Your task to perform on an android device: Open the stopwatch Image 0: 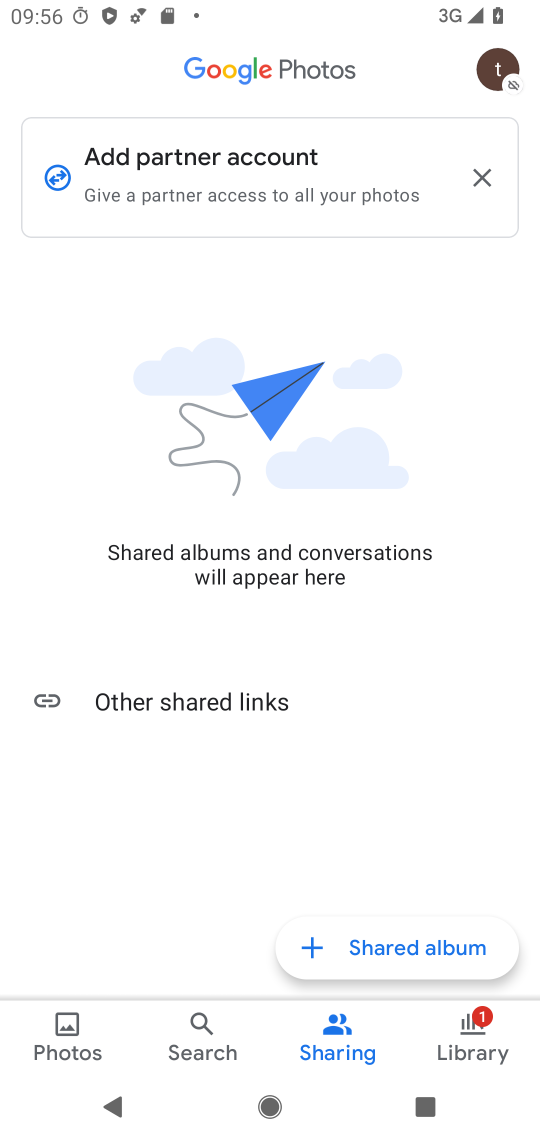
Step 0: press home button
Your task to perform on an android device: Open the stopwatch Image 1: 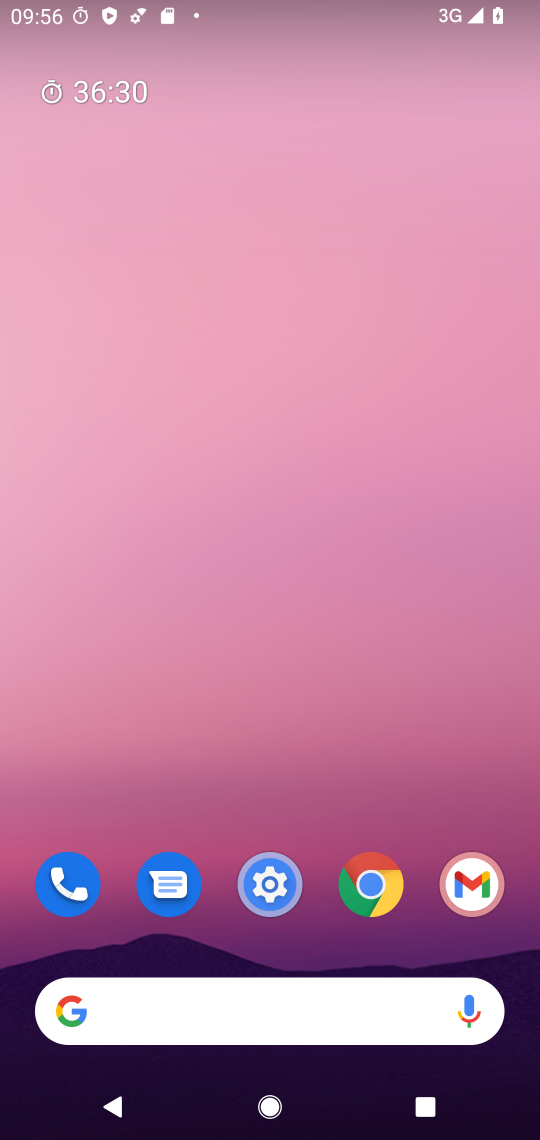
Step 1: drag from (294, 642) to (302, 184)
Your task to perform on an android device: Open the stopwatch Image 2: 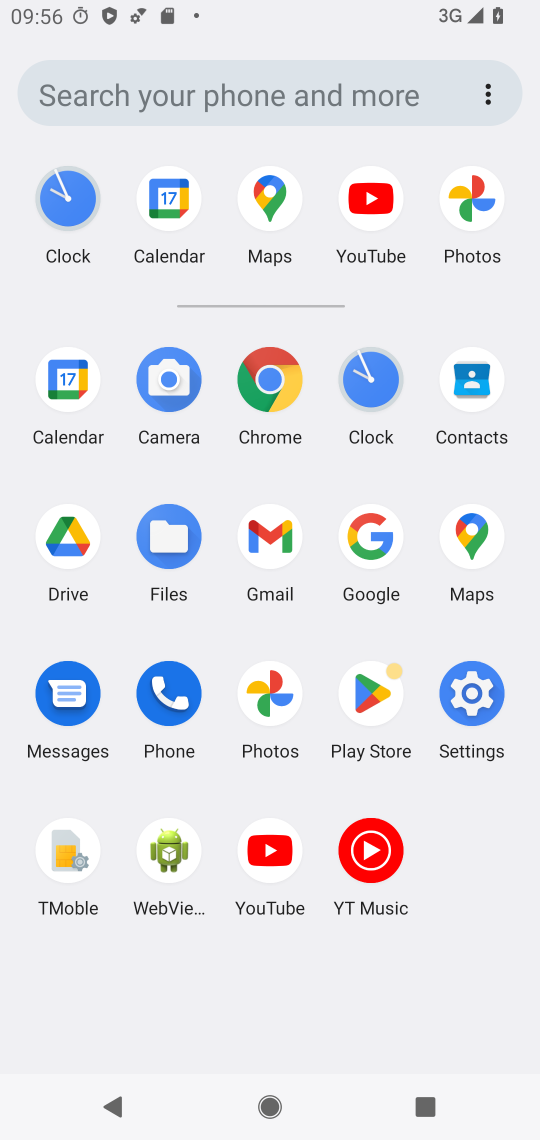
Step 2: click (387, 395)
Your task to perform on an android device: Open the stopwatch Image 3: 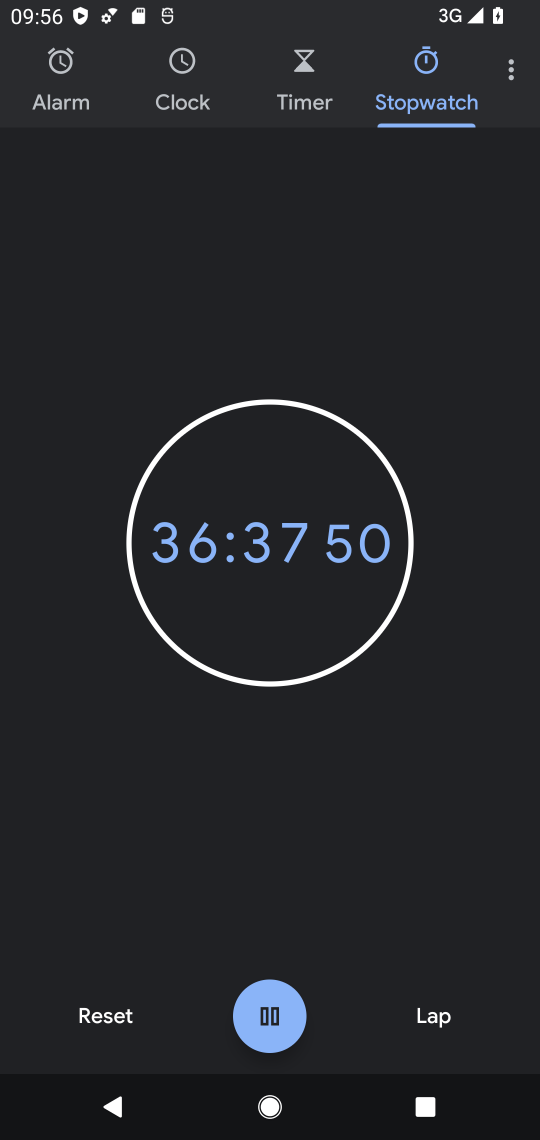
Step 3: task complete